Your task to perform on an android device: check google app version Image 0: 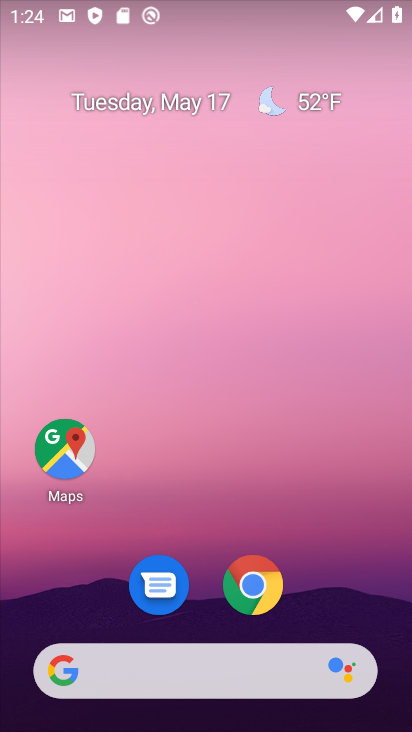
Step 0: click (237, 662)
Your task to perform on an android device: check google app version Image 1: 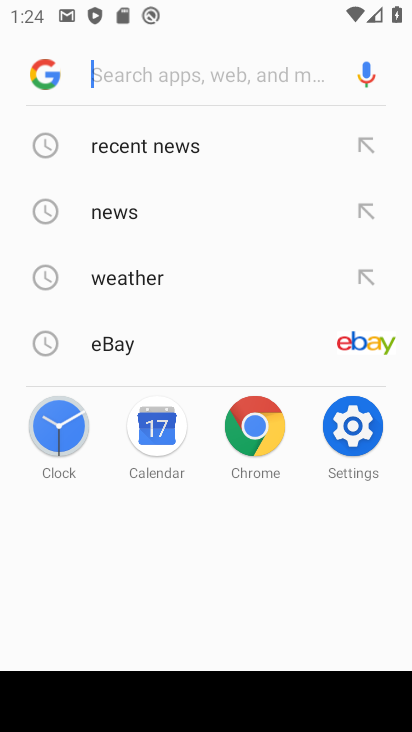
Step 1: click (37, 58)
Your task to perform on an android device: check google app version Image 2: 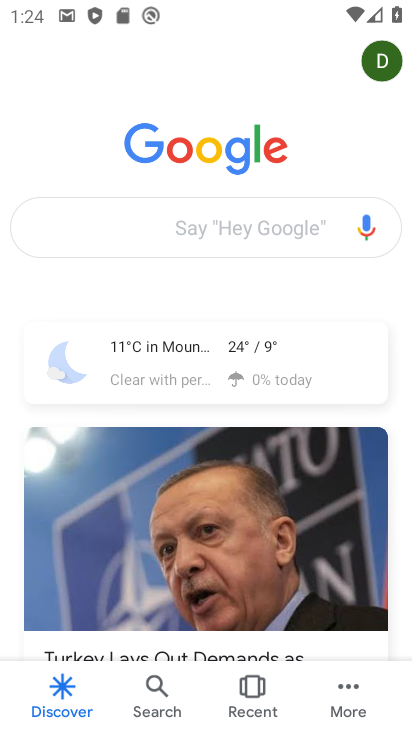
Step 2: click (346, 681)
Your task to perform on an android device: check google app version Image 3: 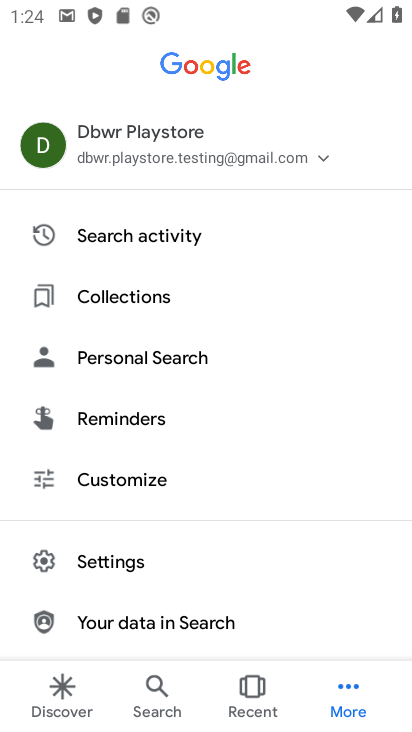
Step 3: click (212, 571)
Your task to perform on an android device: check google app version Image 4: 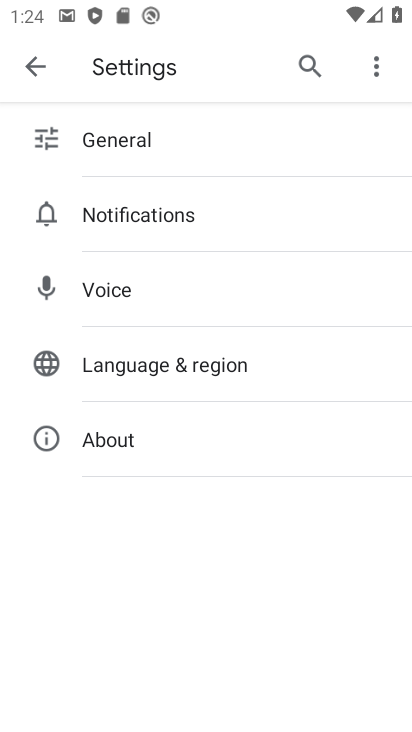
Step 4: click (106, 434)
Your task to perform on an android device: check google app version Image 5: 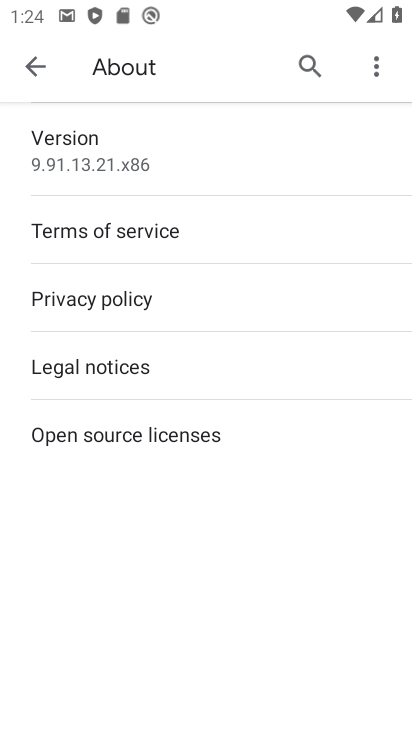
Step 5: task complete